Your task to perform on an android device: Go to Google maps Image 0: 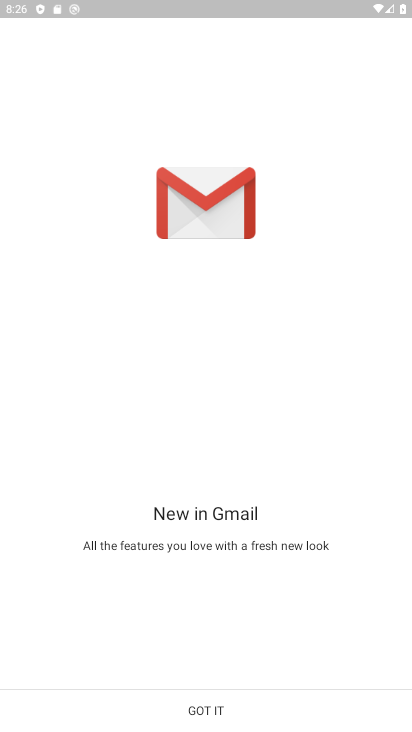
Step 0: press home button
Your task to perform on an android device: Go to Google maps Image 1: 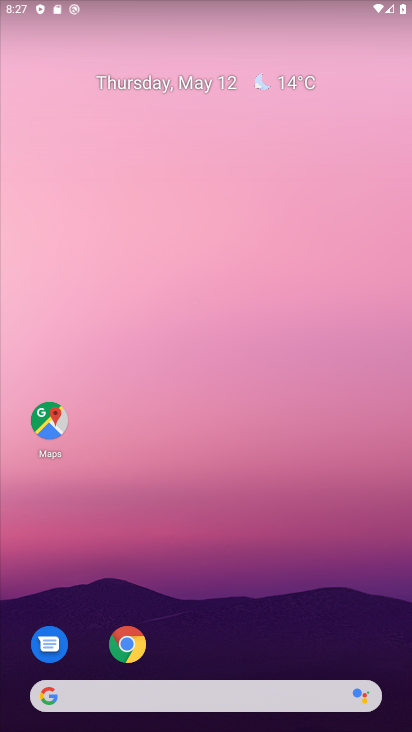
Step 1: click (284, 76)
Your task to perform on an android device: Go to Google maps Image 2: 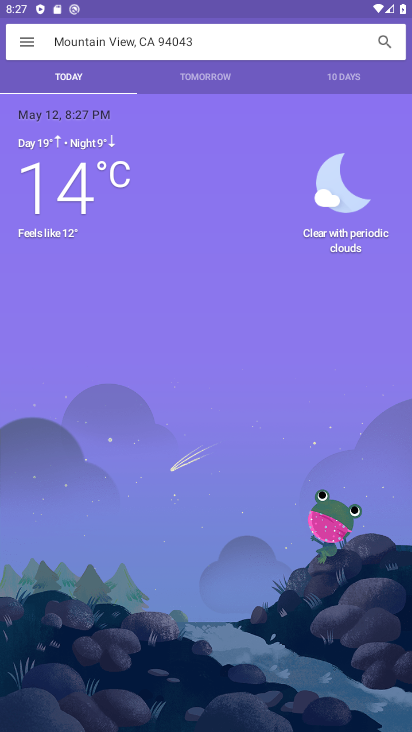
Step 2: press home button
Your task to perform on an android device: Go to Google maps Image 3: 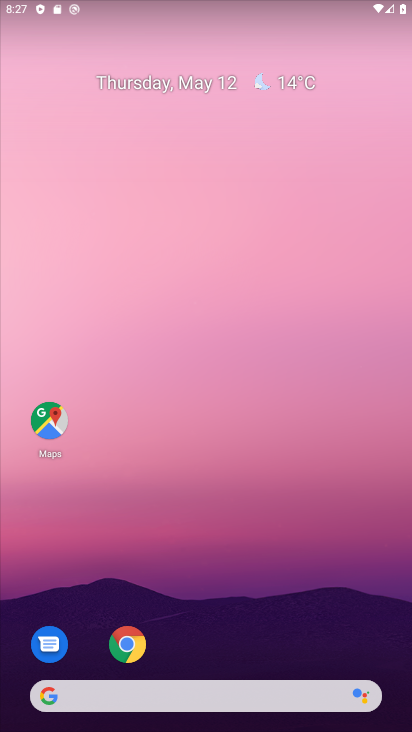
Step 3: click (48, 434)
Your task to perform on an android device: Go to Google maps Image 4: 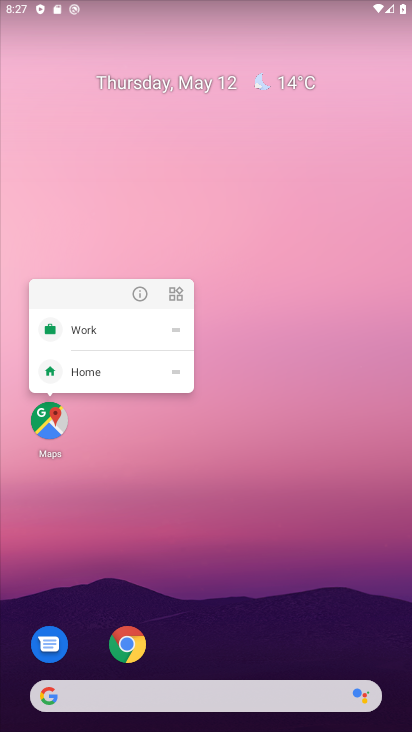
Step 4: click (51, 429)
Your task to perform on an android device: Go to Google maps Image 5: 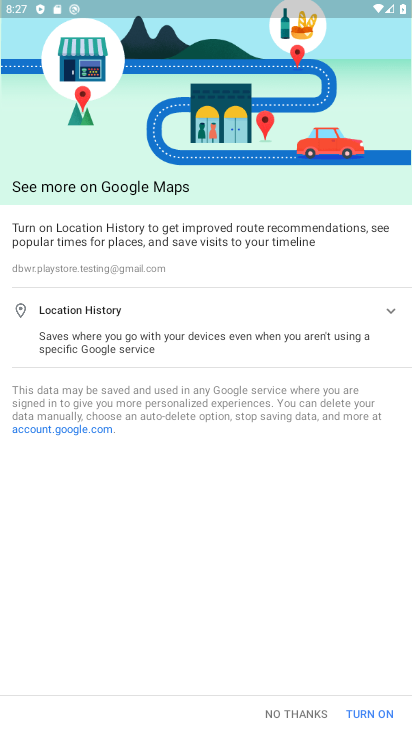
Step 5: click (293, 712)
Your task to perform on an android device: Go to Google maps Image 6: 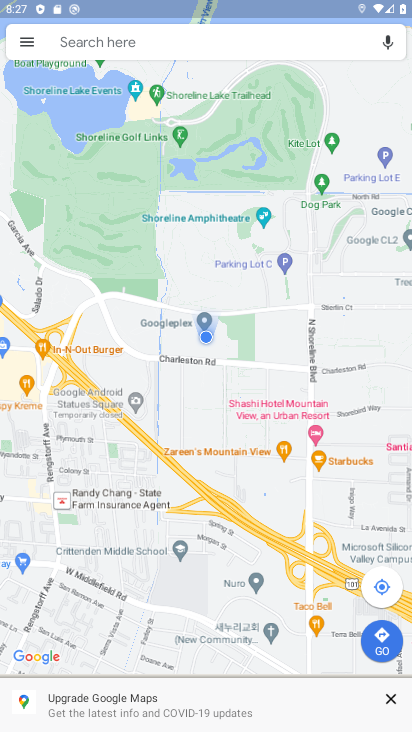
Step 6: task complete